Your task to perform on an android device: open a new tab in the chrome app Image 0: 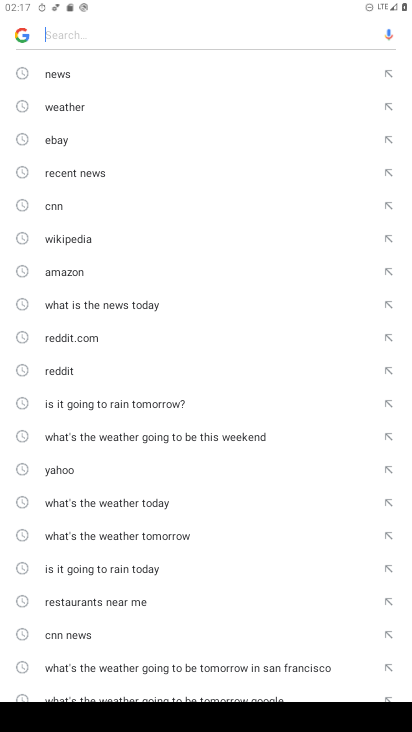
Step 0: press home button
Your task to perform on an android device: open a new tab in the chrome app Image 1: 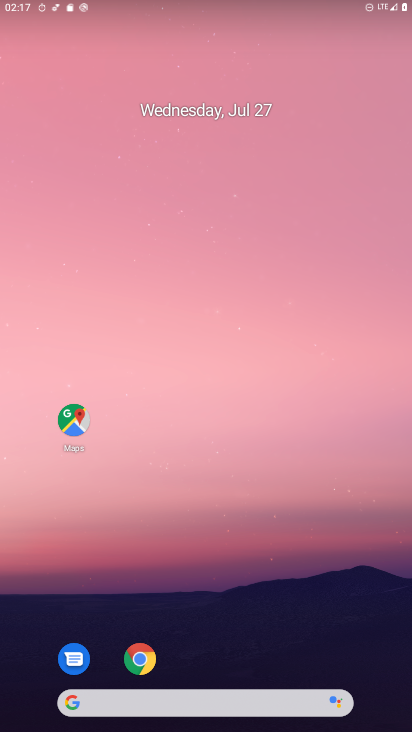
Step 1: drag from (279, 626) to (154, 31)
Your task to perform on an android device: open a new tab in the chrome app Image 2: 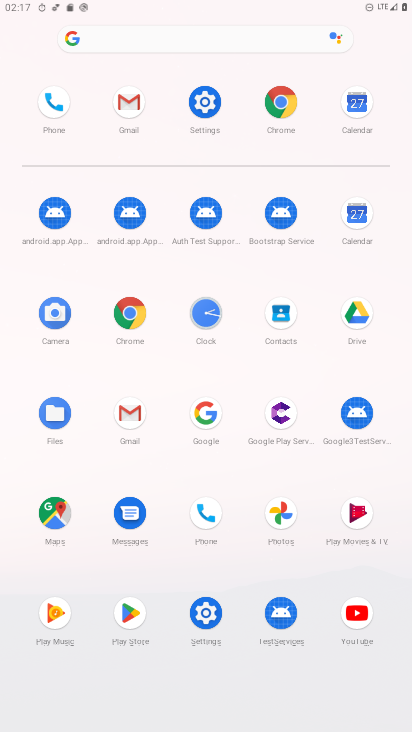
Step 2: click (134, 319)
Your task to perform on an android device: open a new tab in the chrome app Image 3: 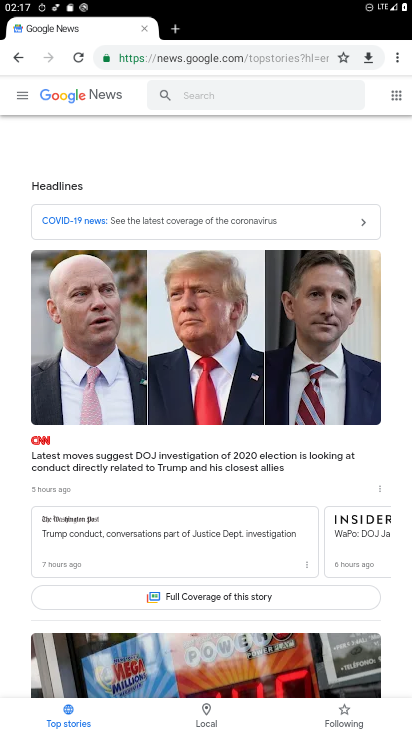
Step 3: task complete